Your task to perform on an android device: Turn off the flashlight Image 0: 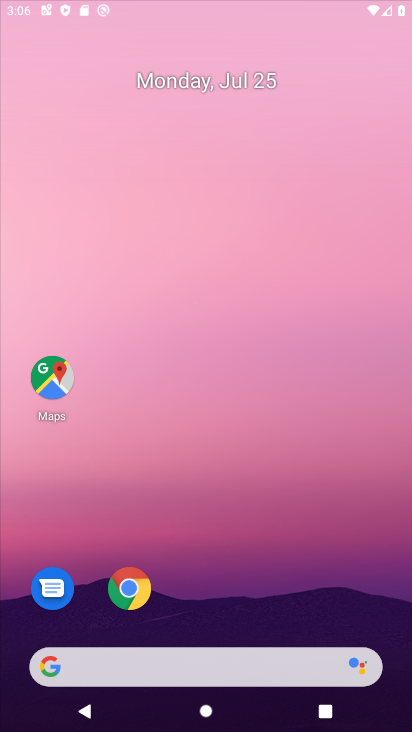
Step 0: drag from (300, 521) to (292, 20)
Your task to perform on an android device: Turn off the flashlight Image 1: 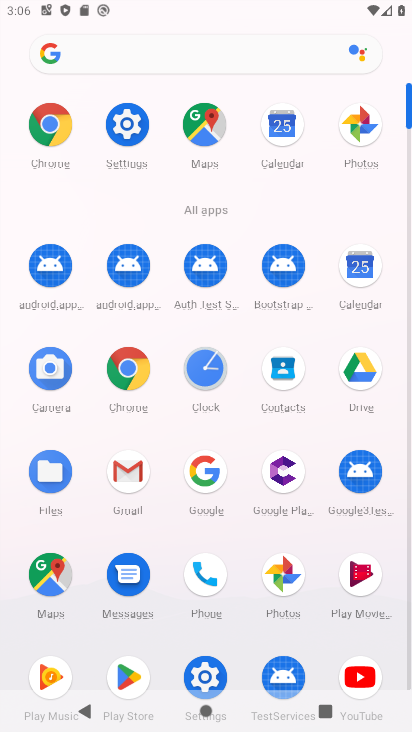
Step 1: click (114, 122)
Your task to perform on an android device: Turn off the flashlight Image 2: 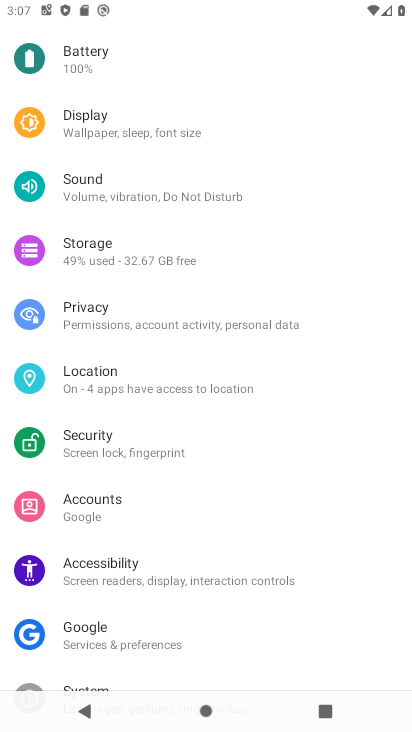
Step 2: click (155, 126)
Your task to perform on an android device: Turn off the flashlight Image 3: 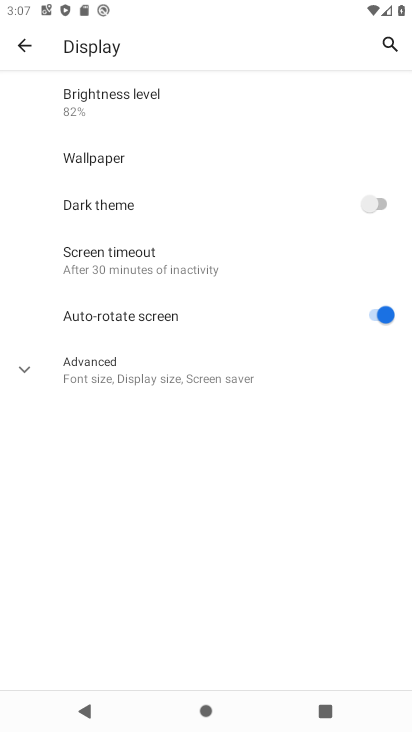
Step 3: click (168, 261)
Your task to perform on an android device: Turn off the flashlight Image 4: 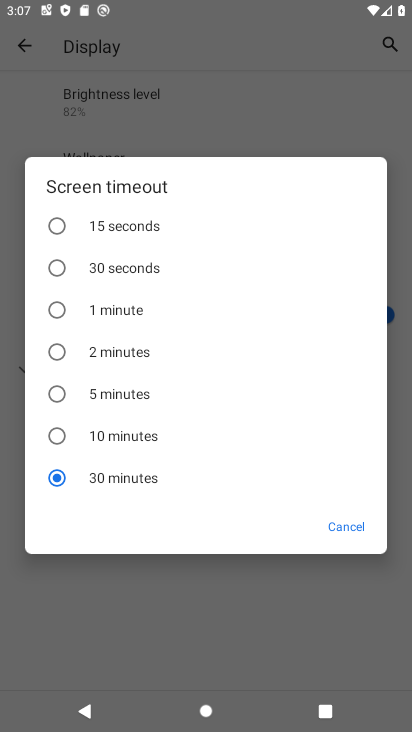
Step 4: task complete